Your task to perform on an android device: turn off sleep mode Image 0: 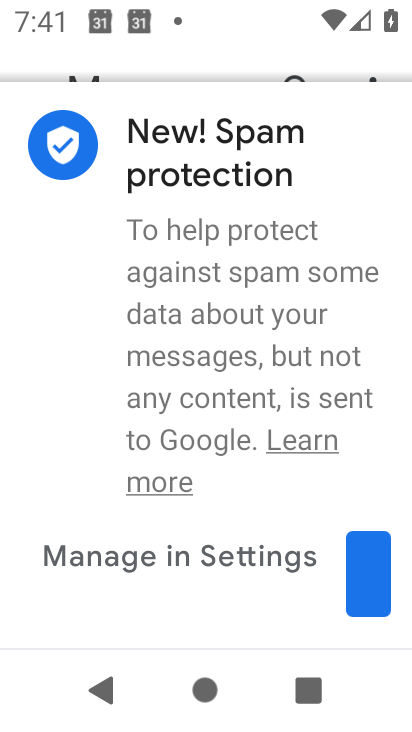
Step 0: press home button
Your task to perform on an android device: turn off sleep mode Image 1: 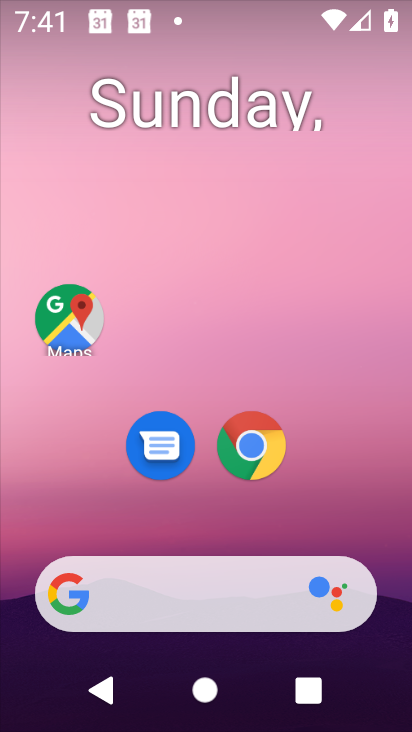
Step 1: drag from (14, 666) to (250, 111)
Your task to perform on an android device: turn off sleep mode Image 2: 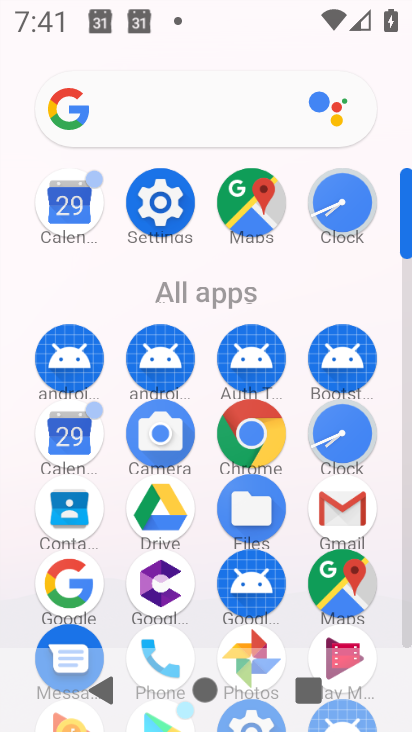
Step 2: click (131, 213)
Your task to perform on an android device: turn off sleep mode Image 3: 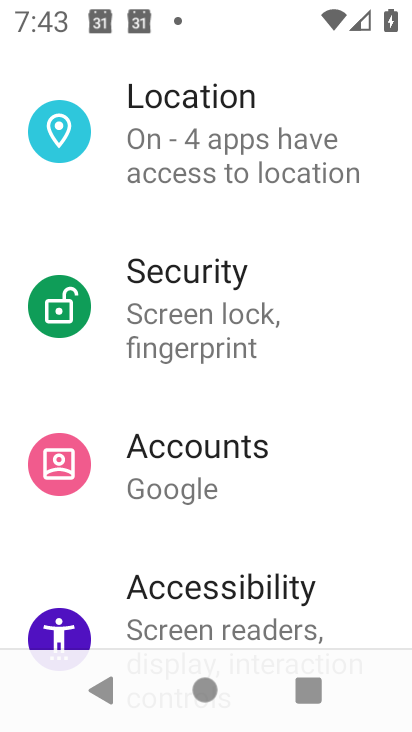
Step 3: task complete